Your task to perform on an android device: toggle translation in the chrome app Image 0: 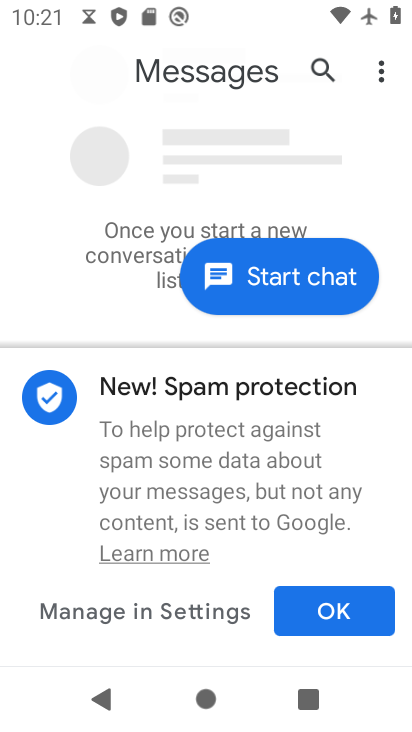
Step 0: press home button
Your task to perform on an android device: toggle translation in the chrome app Image 1: 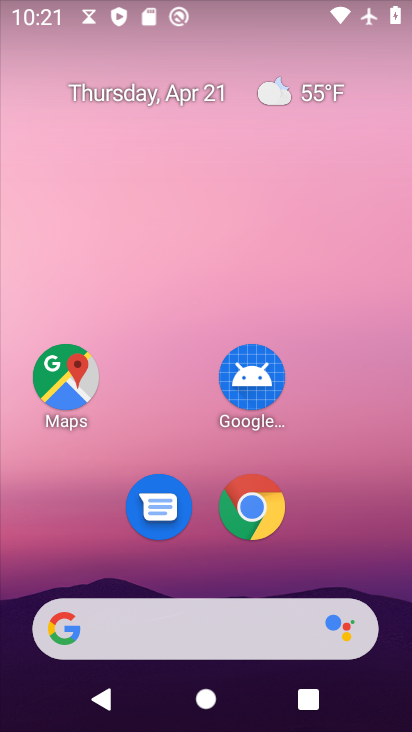
Step 1: drag from (346, 558) to (294, 243)
Your task to perform on an android device: toggle translation in the chrome app Image 2: 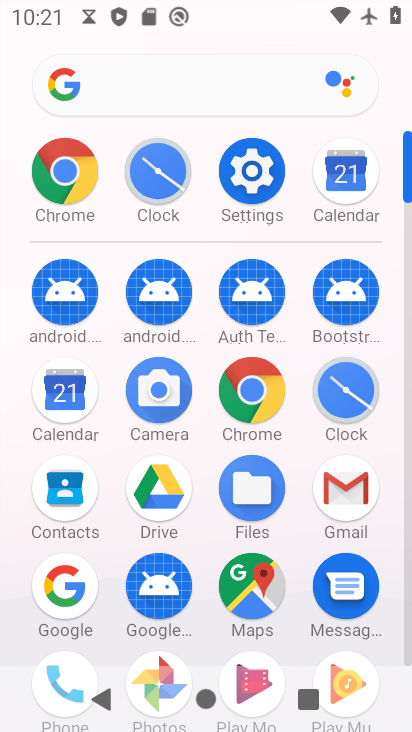
Step 2: click (243, 385)
Your task to perform on an android device: toggle translation in the chrome app Image 3: 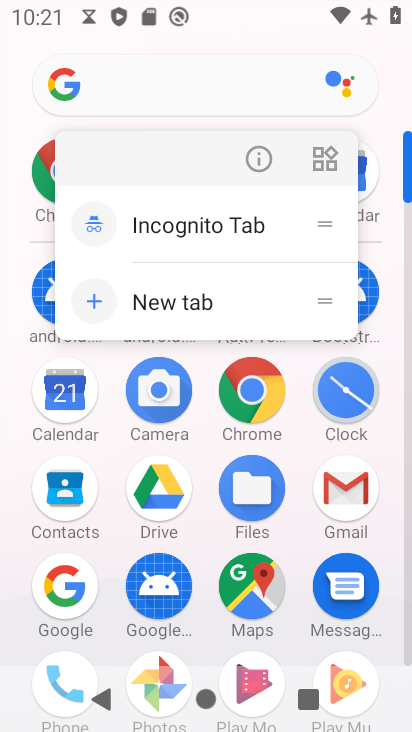
Step 3: click (239, 384)
Your task to perform on an android device: toggle translation in the chrome app Image 4: 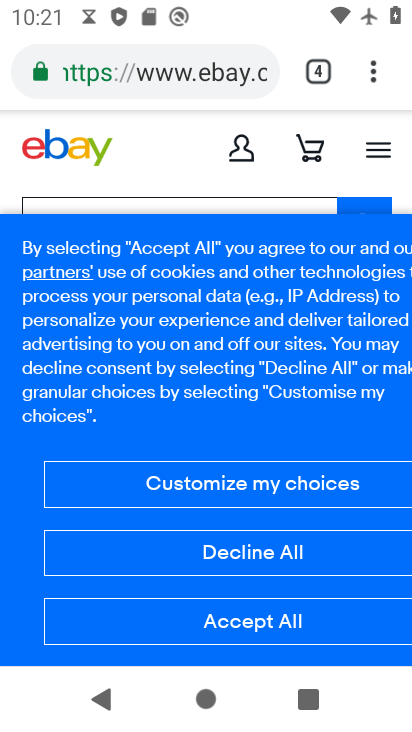
Step 4: click (361, 62)
Your task to perform on an android device: toggle translation in the chrome app Image 5: 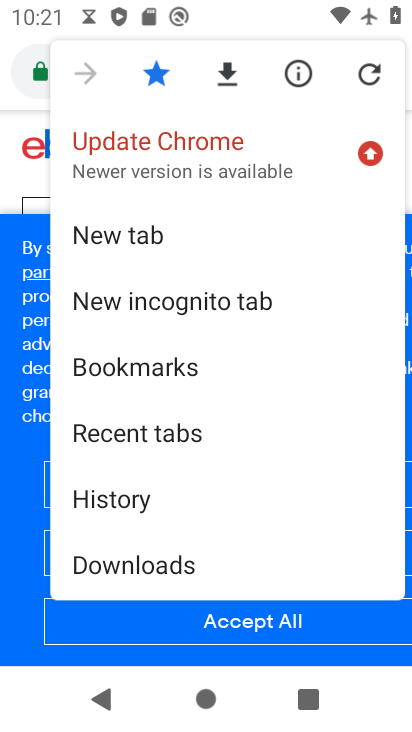
Step 5: drag from (180, 545) to (186, 184)
Your task to perform on an android device: toggle translation in the chrome app Image 6: 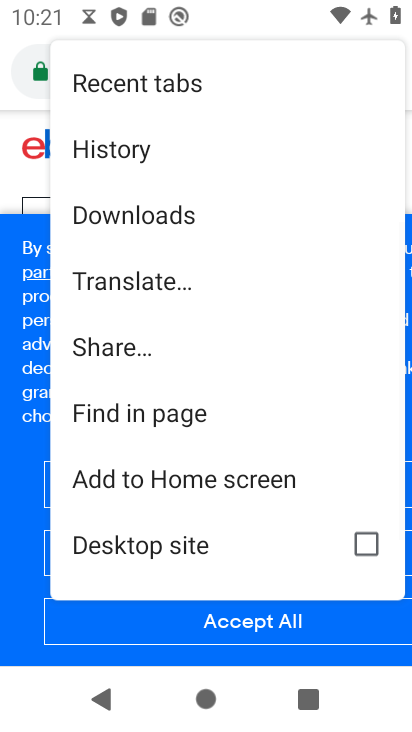
Step 6: drag from (183, 533) to (184, 178)
Your task to perform on an android device: toggle translation in the chrome app Image 7: 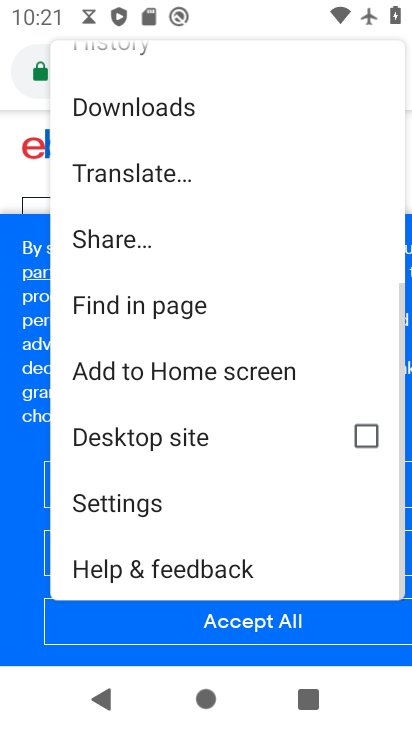
Step 7: click (188, 494)
Your task to perform on an android device: toggle translation in the chrome app Image 8: 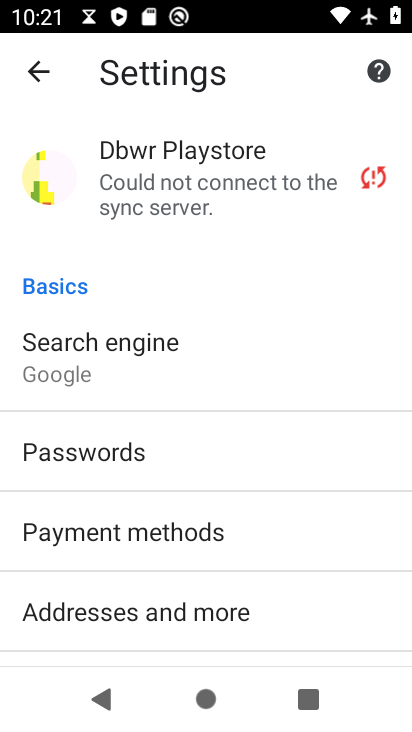
Step 8: drag from (192, 597) to (236, 116)
Your task to perform on an android device: toggle translation in the chrome app Image 9: 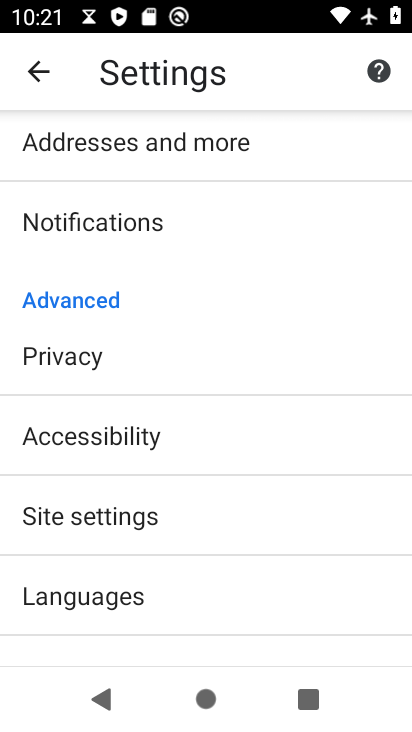
Step 9: drag from (159, 584) to (225, 227)
Your task to perform on an android device: toggle translation in the chrome app Image 10: 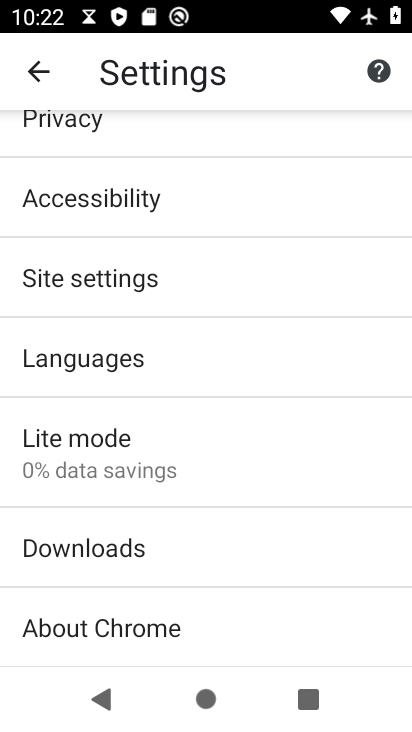
Step 10: click (109, 349)
Your task to perform on an android device: toggle translation in the chrome app Image 11: 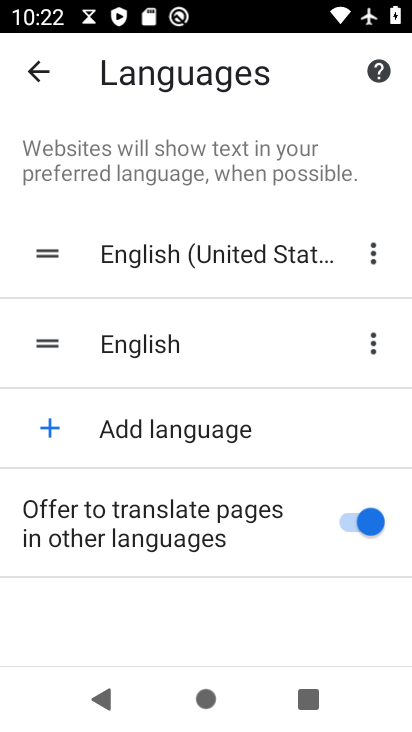
Step 11: click (345, 517)
Your task to perform on an android device: toggle translation in the chrome app Image 12: 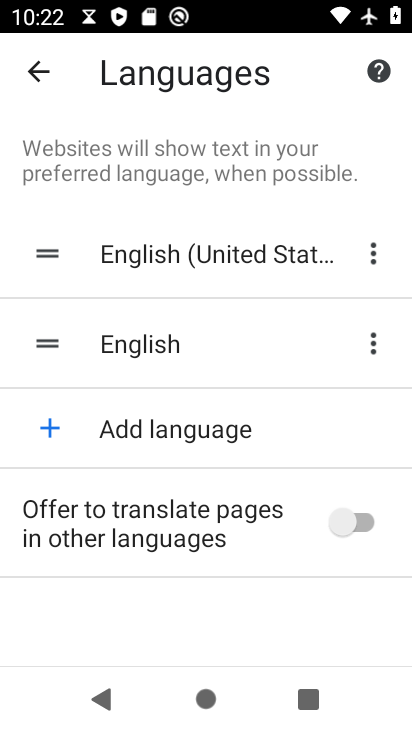
Step 12: task complete